Your task to perform on an android device: Go to Google maps Image 0: 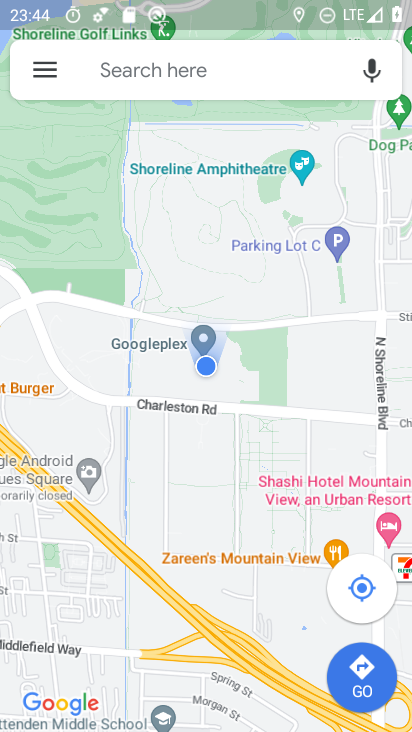
Step 0: press home button
Your task to perform on an android device: Go to Google maps Image 1: 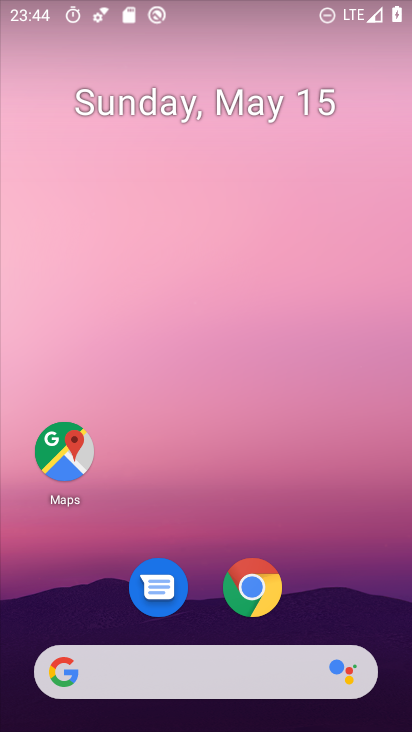
Step 1: click (68, 466)
Your task to perform on an android device: Go to Google maps Image 2: 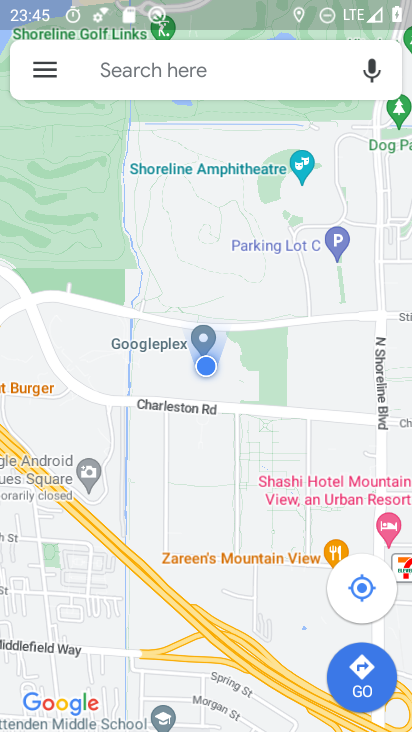
Step 2: task complete